Your task to perform on an android device: Add "usb-c" to the cart on amazon, then select checkout. Image 0: 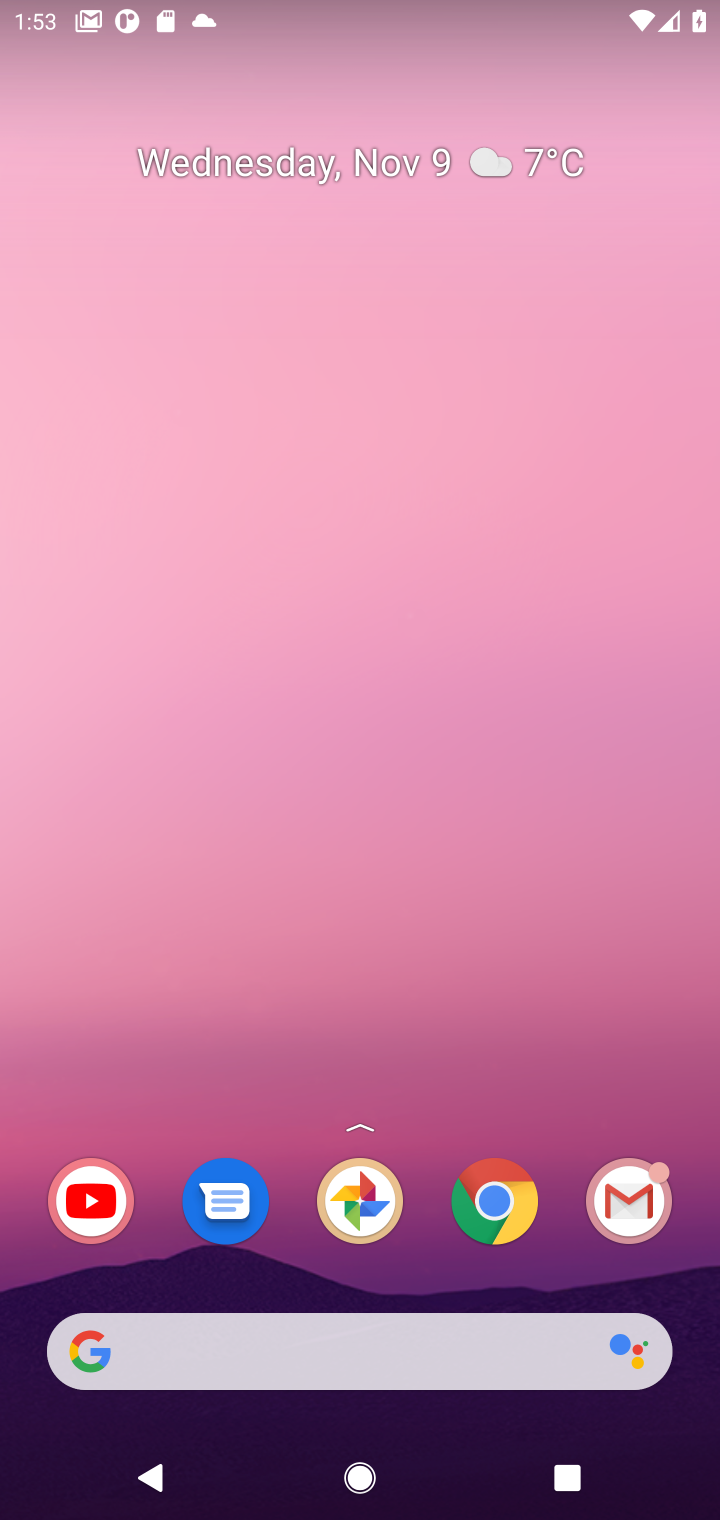
Step 0: click (331, 1344)
Your task to perform on an android device: Add "usb-c" to the cart on amazon, then select checkout. Image 1: 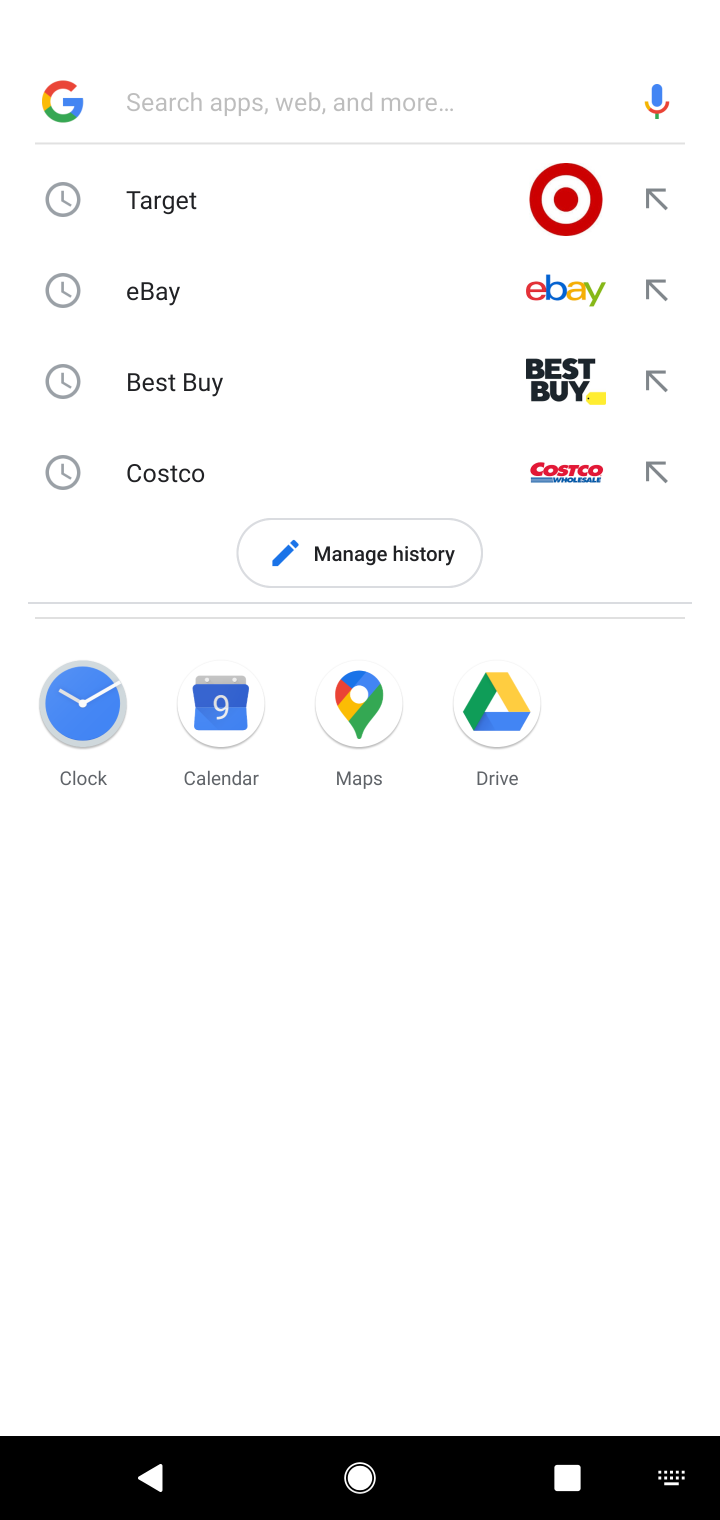
Step 1: type "amazon"
Your task to perform on an android device: Add "usb-c" to the cart on amazon, then select checkout. Image 2: 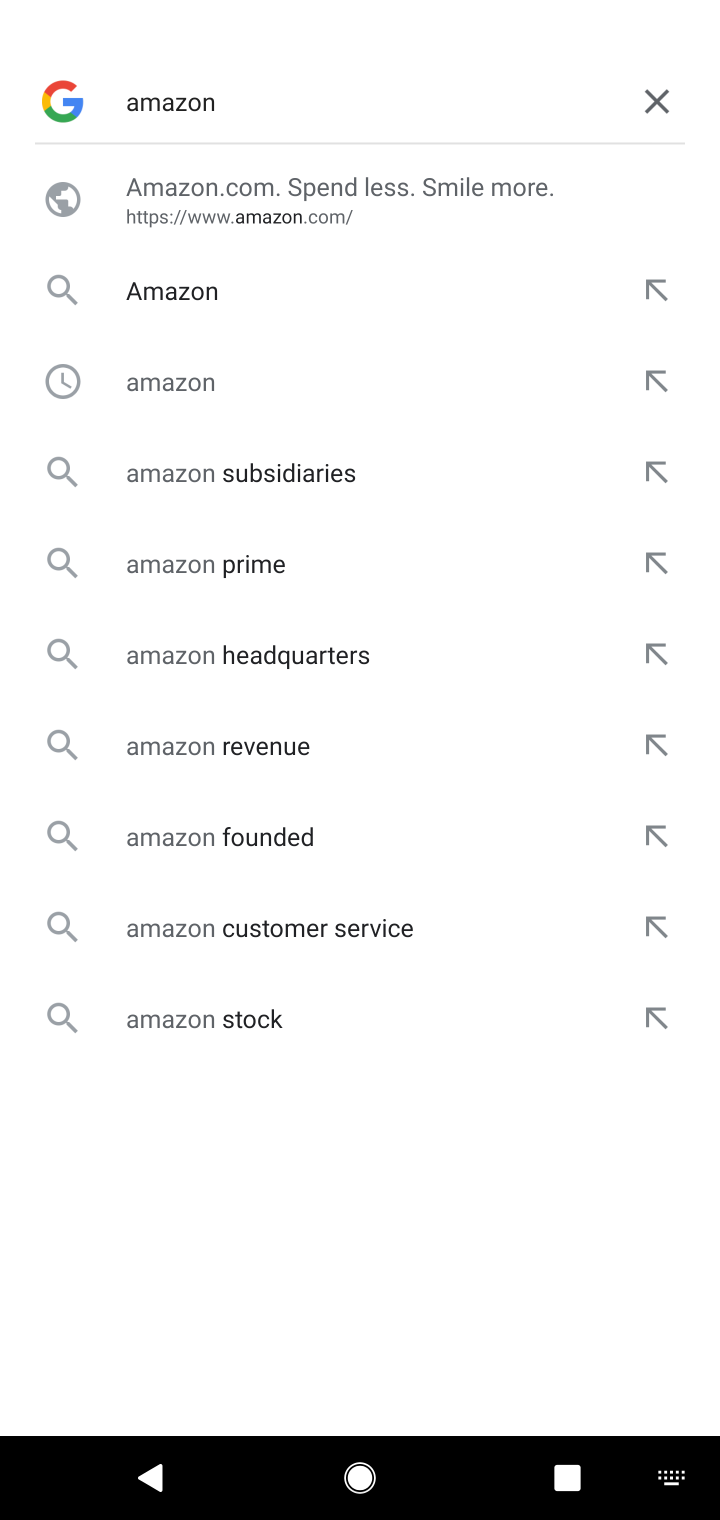
Step 2: click (172, 289)
Your task to perform on an android device: Add "usb-c" to the cart on amazon, then select checkout. Image 3: 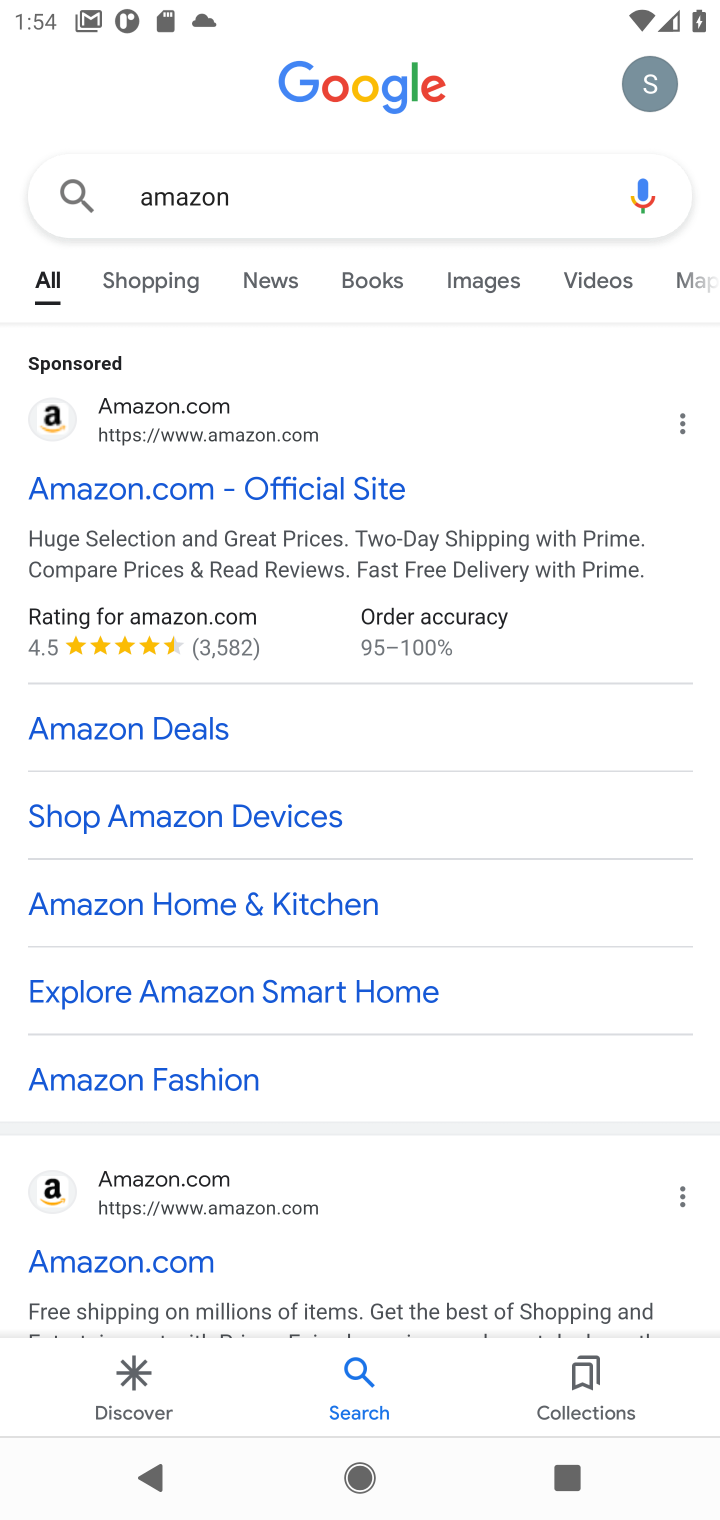
Step 3: click (183, 491)
Your task to perform on an android device: Add "usb-c" to the cart on amazon, then select checkout. Image 4: 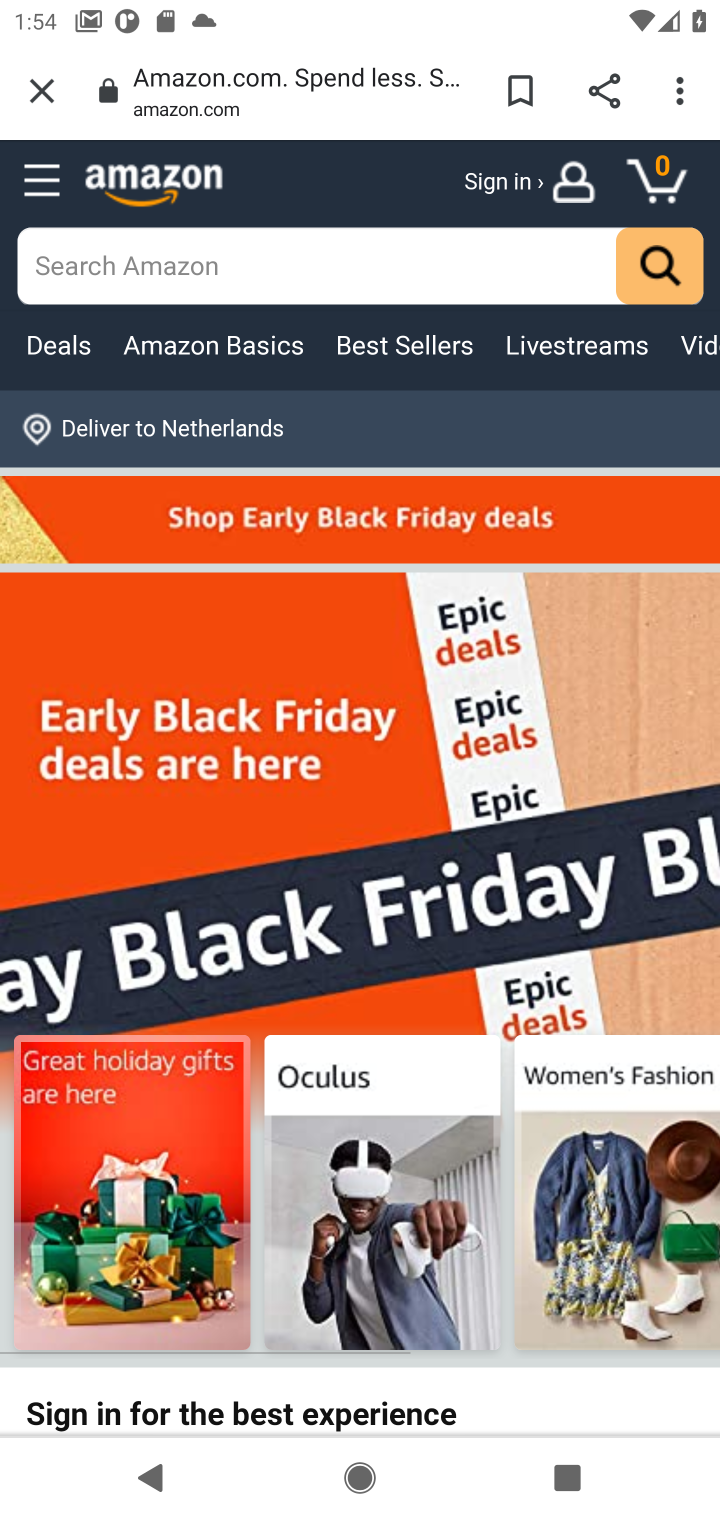
Step 4: click (382, 267)
Your task to perform on an android device: Add "usb-c" to the cart on amazon, then select checkout. Image 5: 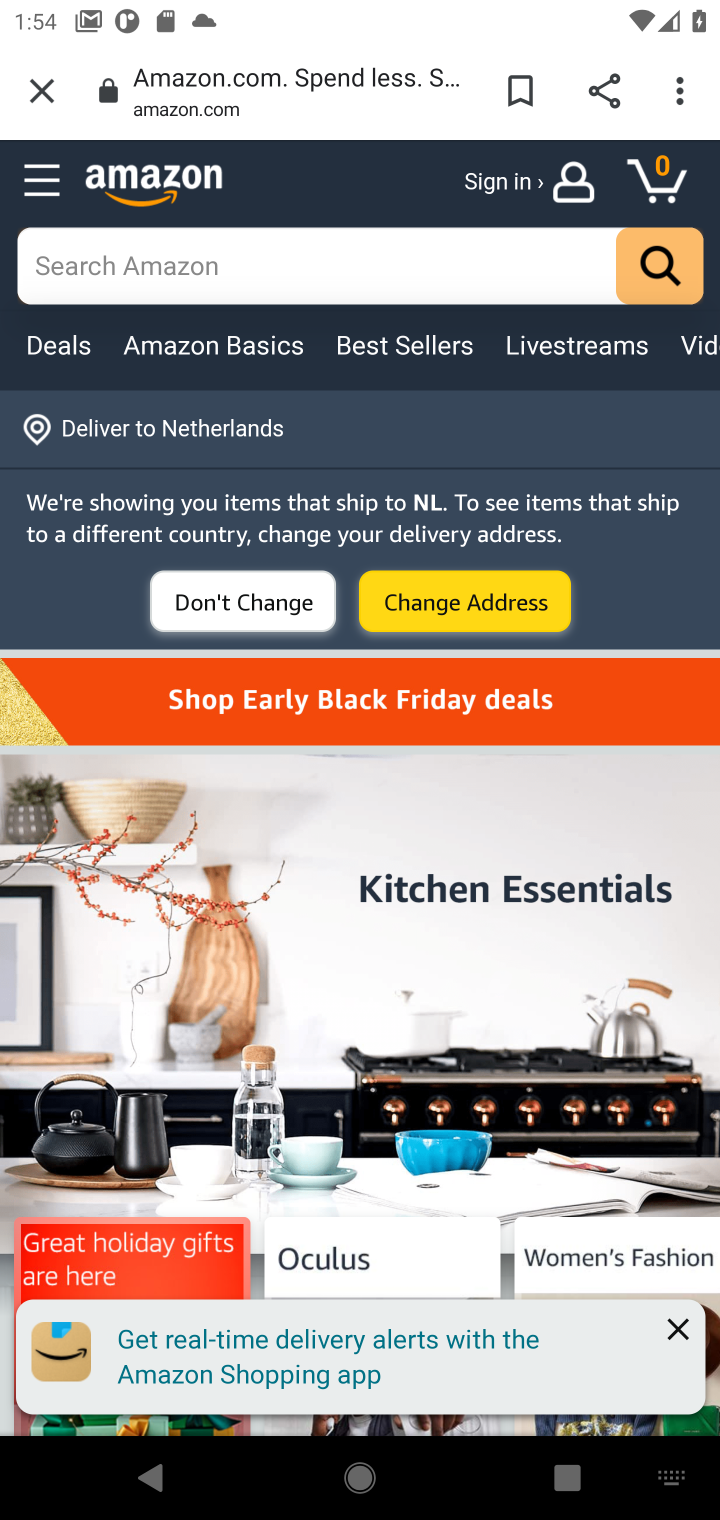
Step 5: type "usb-c"
Your task to perform on an android device: Add "usb-c" to the cart on amazon, then select checkout. Image 6: 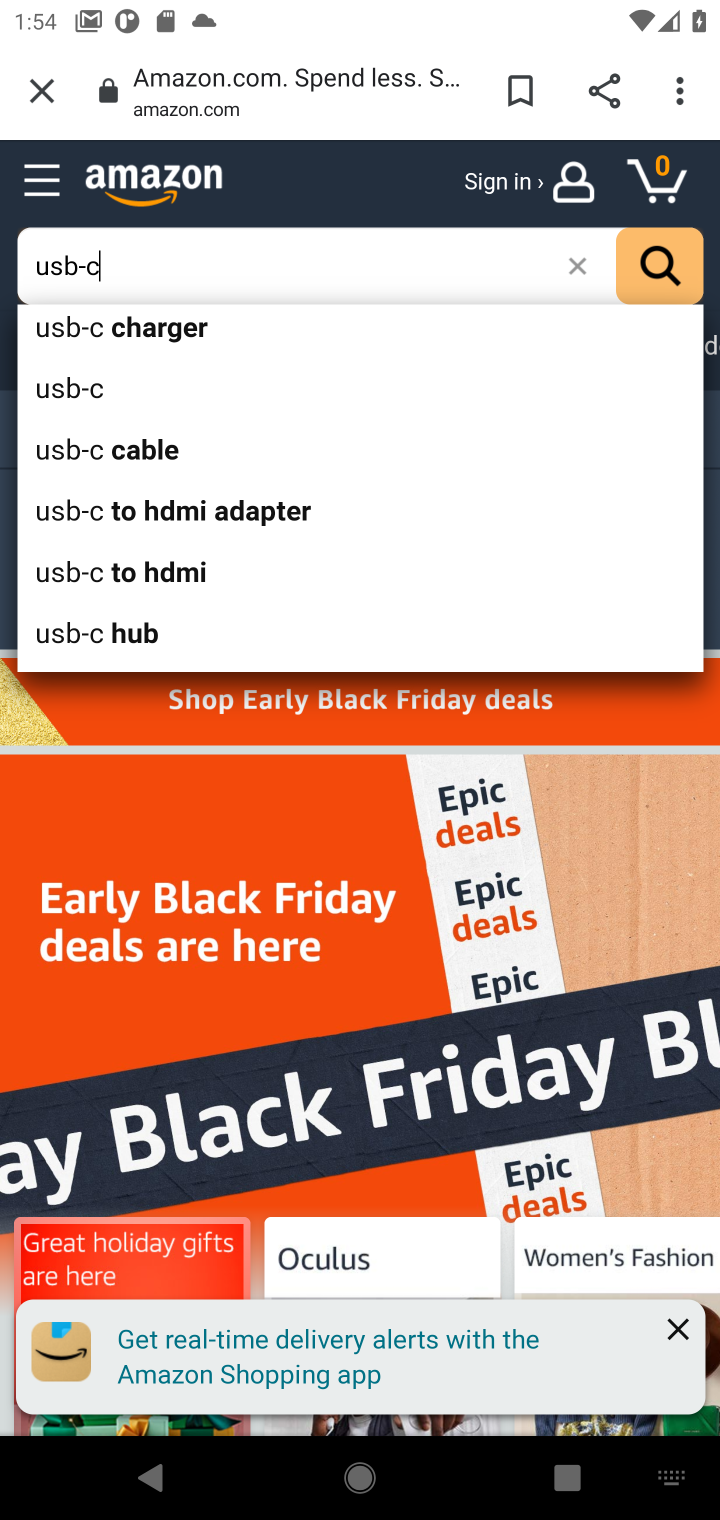
Step 6: click (98, 405)
Your task to perform on an android device: Add "usb-c" to the cart on amazon, then select checkout. Image 7: 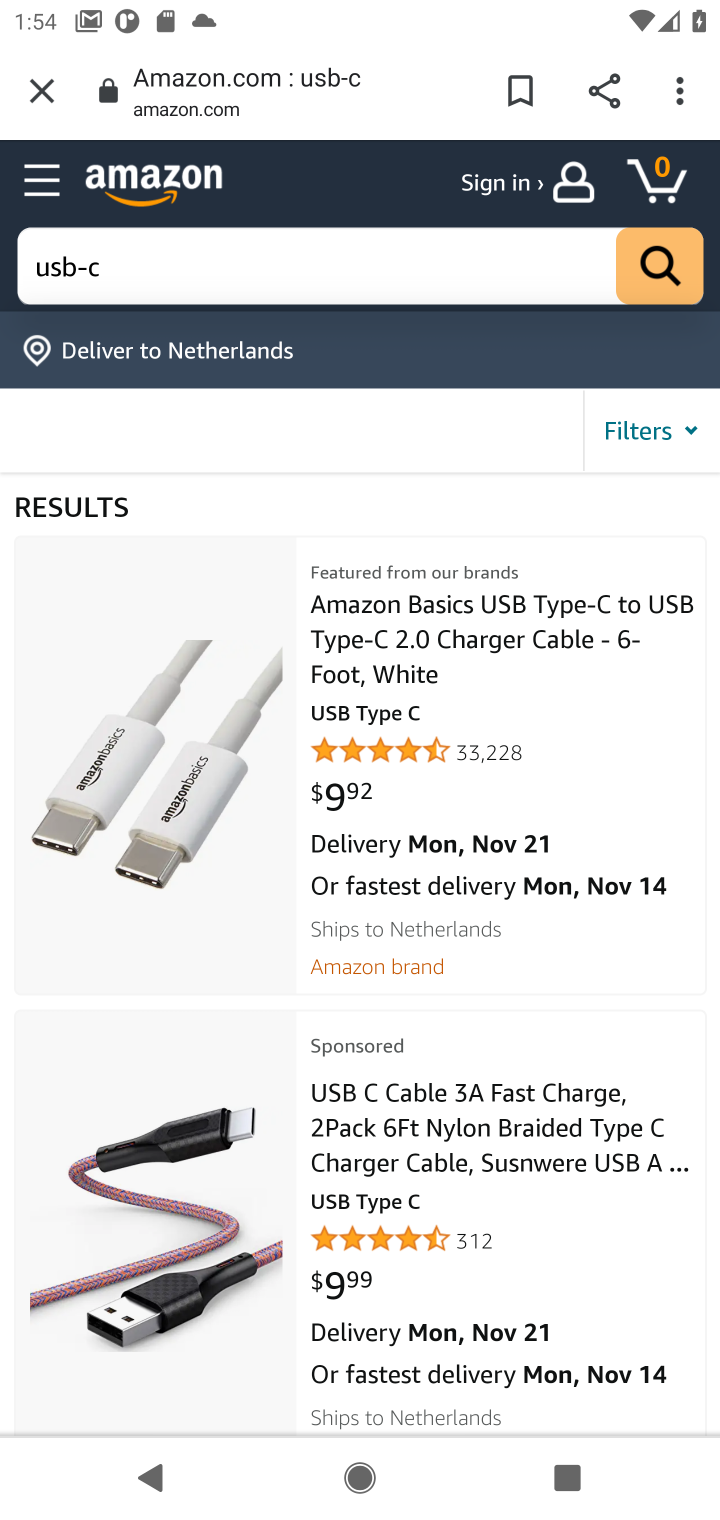
Step 7: click (376, 690)
Your task to perform on an android device: Add "usb-c" to the cart on amazon, then select checkout. Image 8: 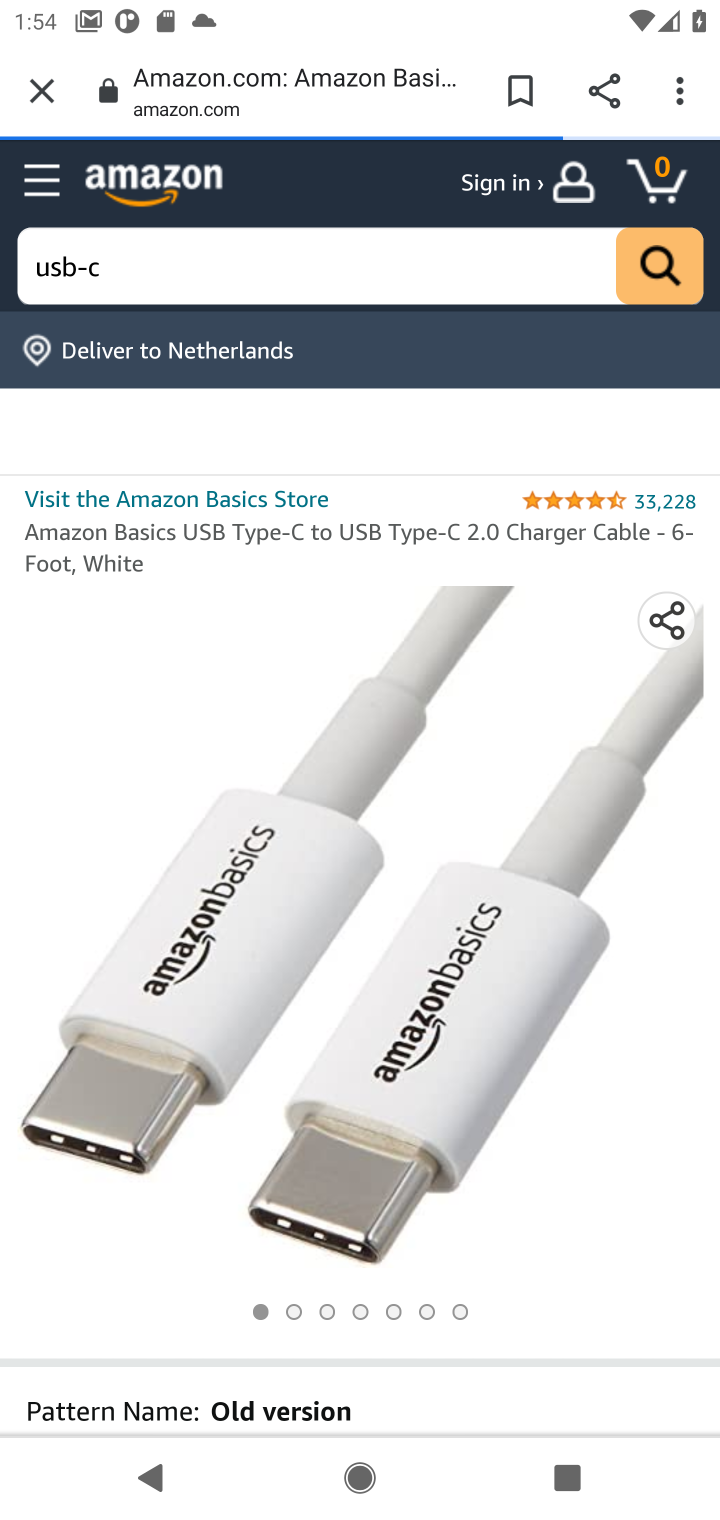
Step 8: drag from (511, 1098) to (484, 755)
Your task to perform on an android device: Add "usb-c" to the cart on amazon, then select checkout. Image 9: 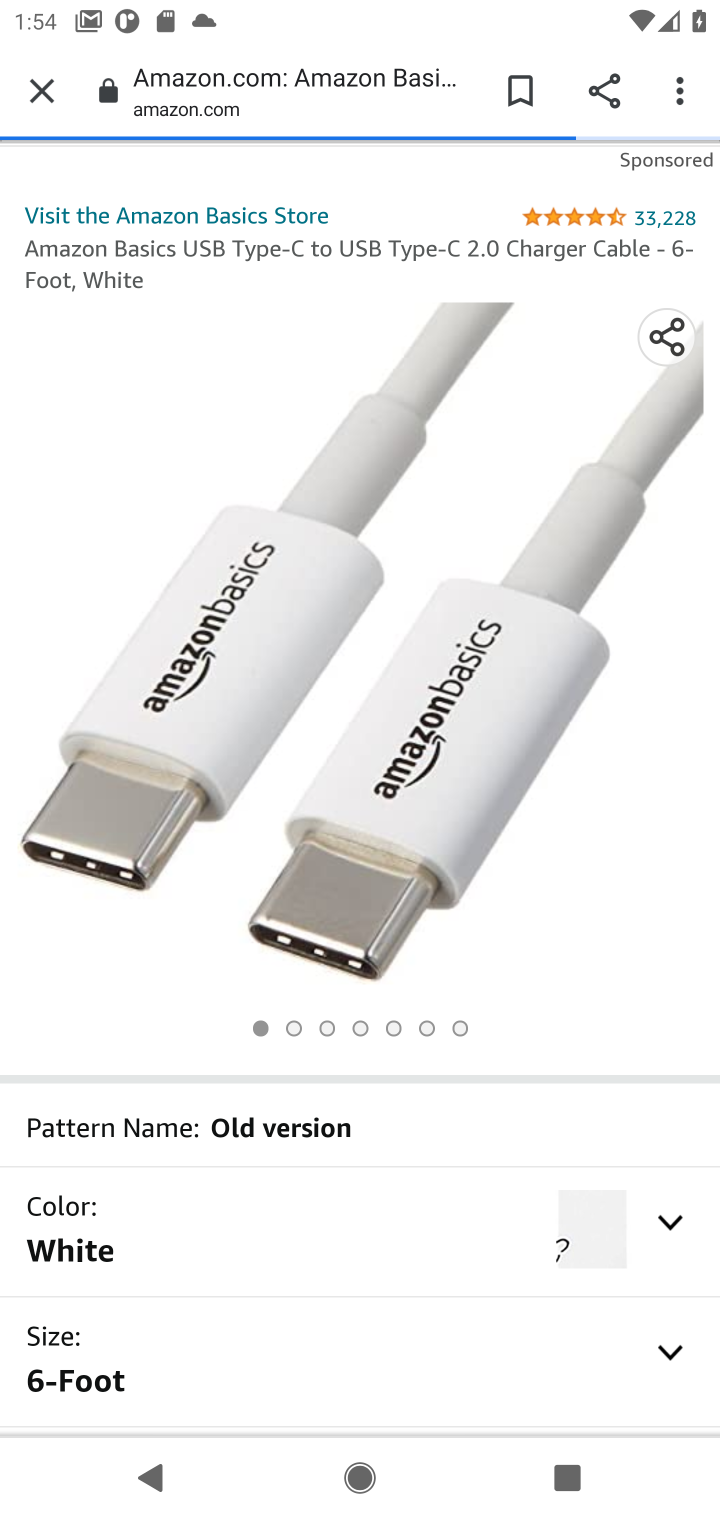
Step 9: click (430, 866)
Your task to perform on an android device: Add "usb-c" to the cart on amazon, then select checkout. Image 10: 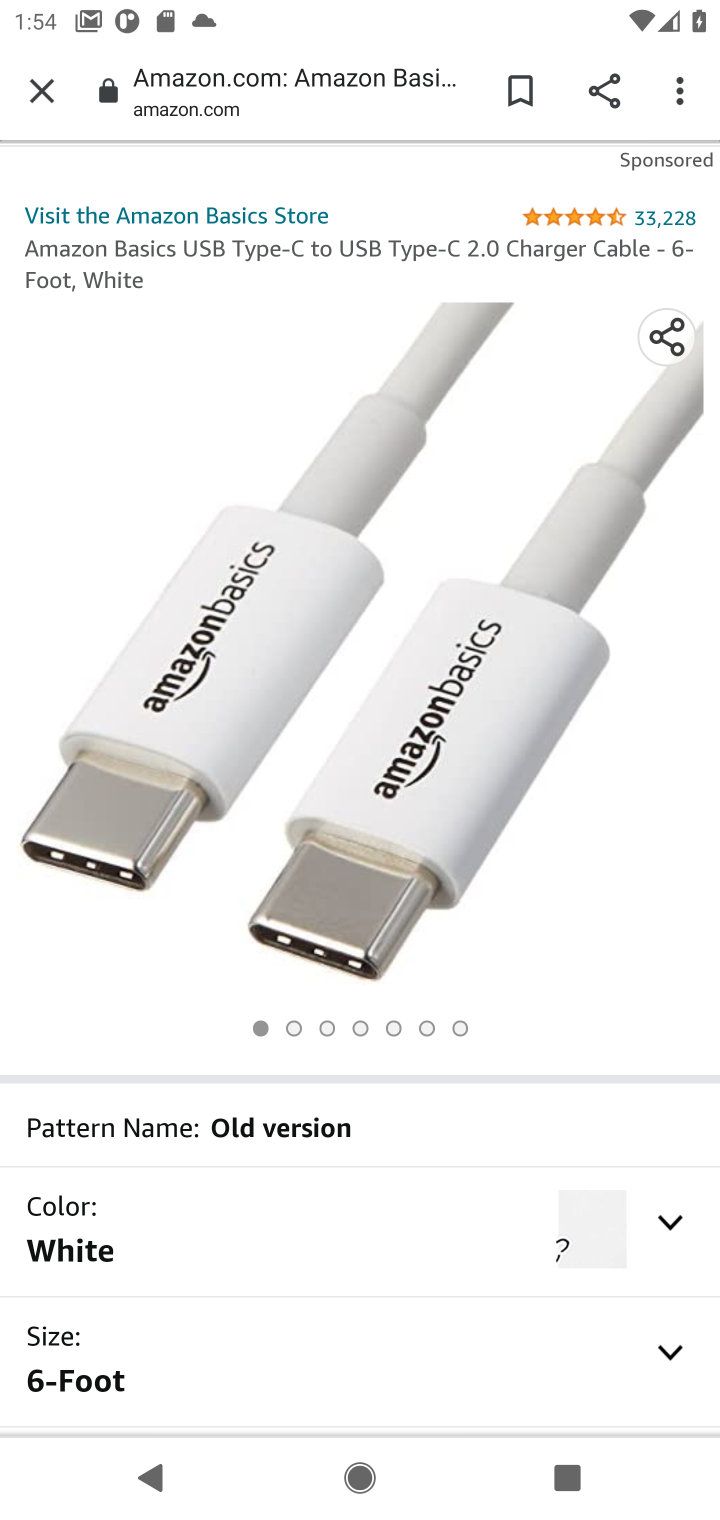
Step 10: drag from (360, 1273) to (358, 701)
Your task to perform on an android device: Add "usb-c" to the cart on amazon, then select checkout. Image 11: 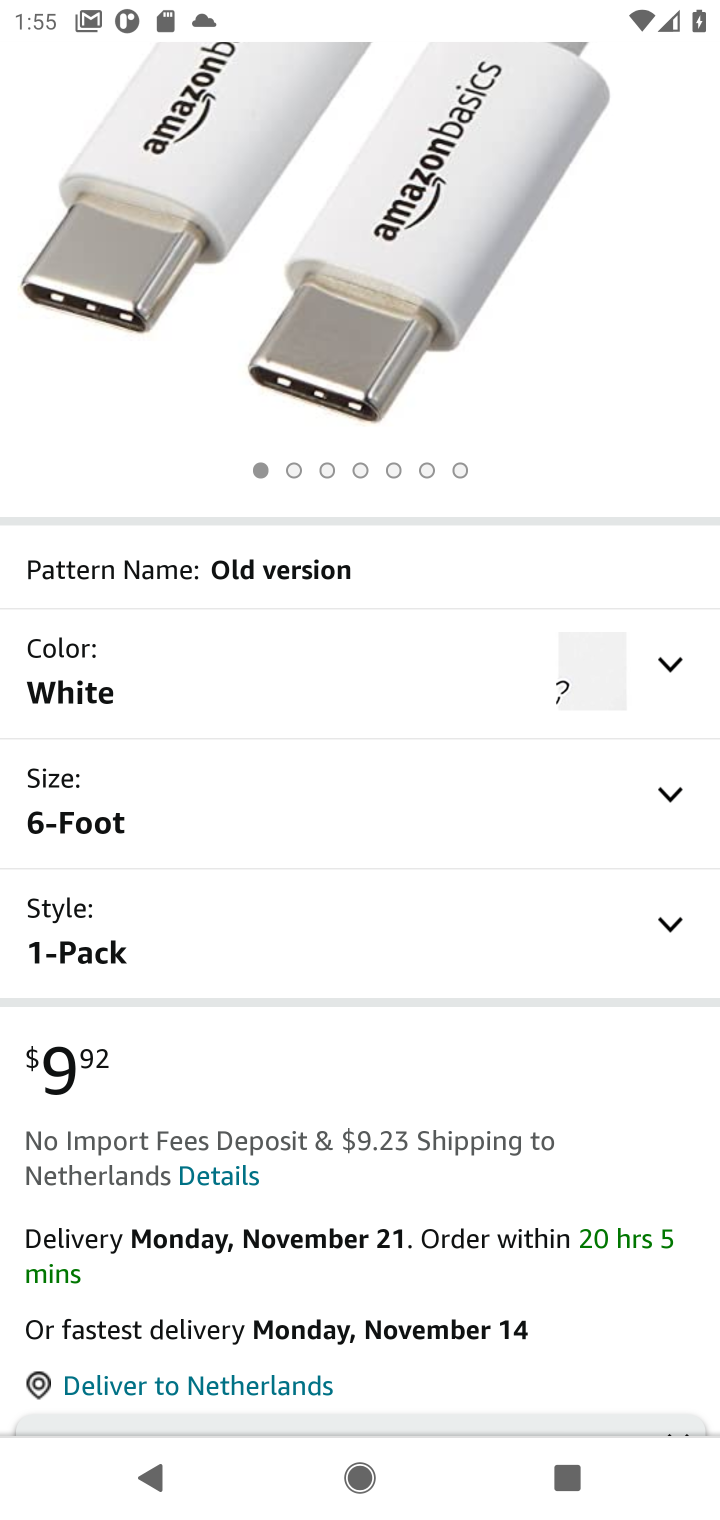
Step 11: click (335, 729)
Your task to perform on an android device: Add "usb-c" to the cart on amazon, then select checkout. Image 12: 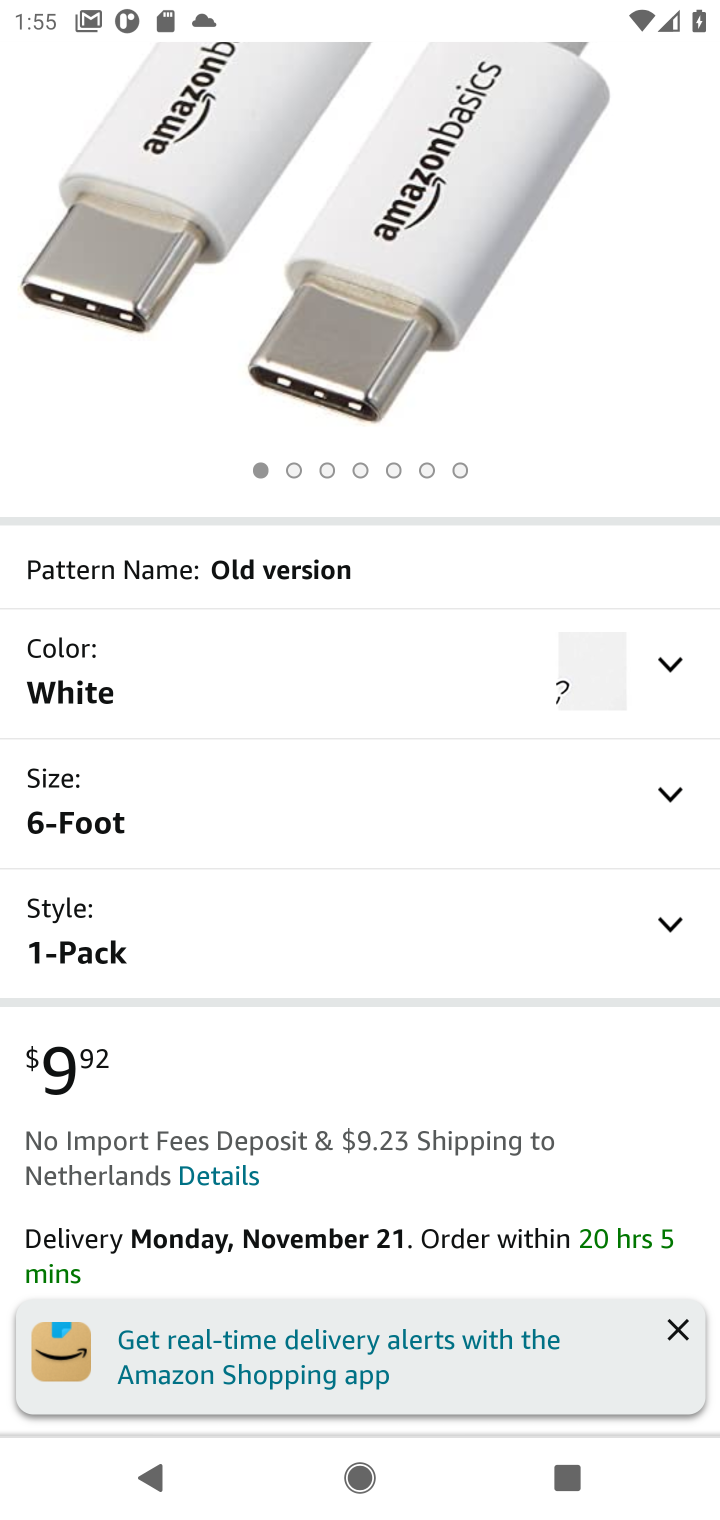
Step 12: click (680, 1327)
Your task to perform on an android device: Add "usb-c" to the cart on amazon, then select checkout. Image 13: 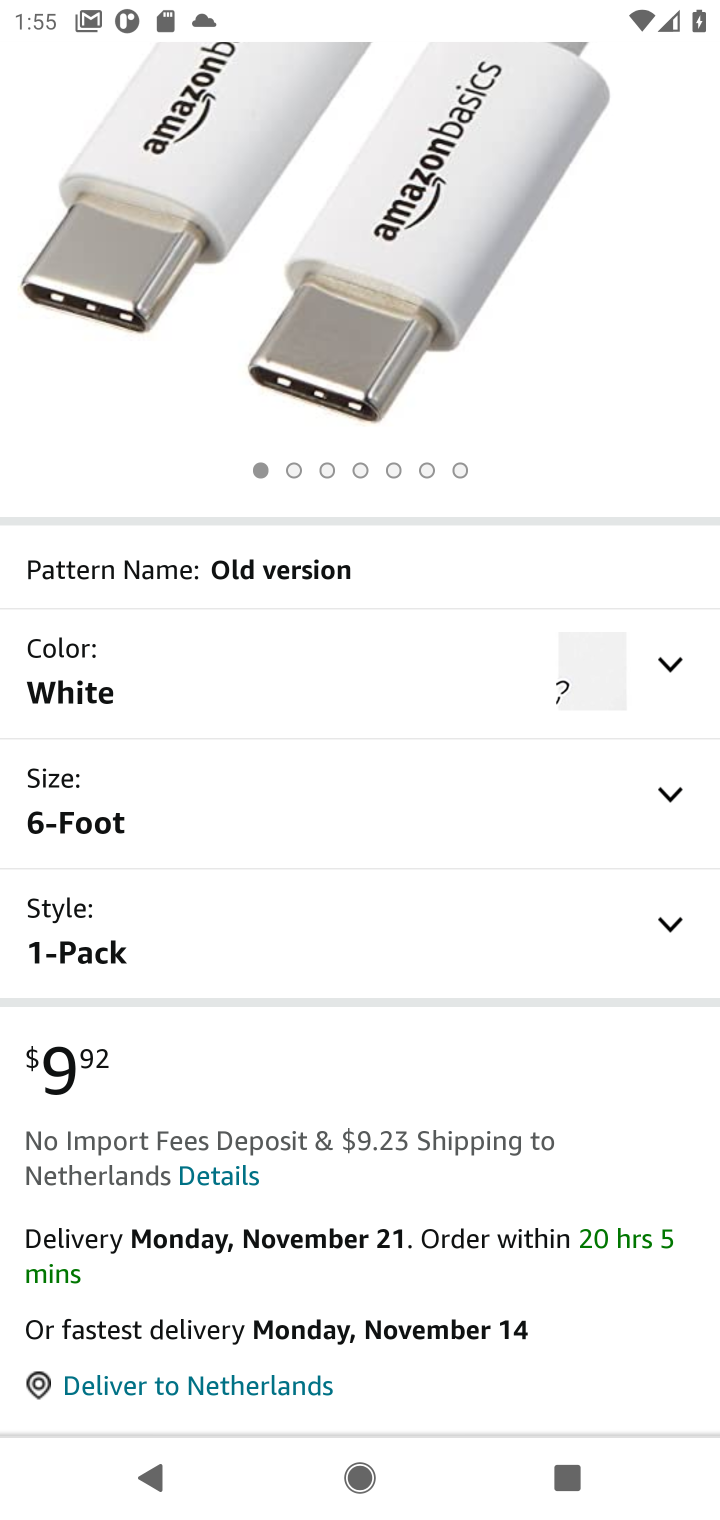
Step 13: drag from (489, 1174) to (446, 891)
Your task to perform on an android device: Add "usb-c" to the cart on amazon, then select checkout. Image 14: 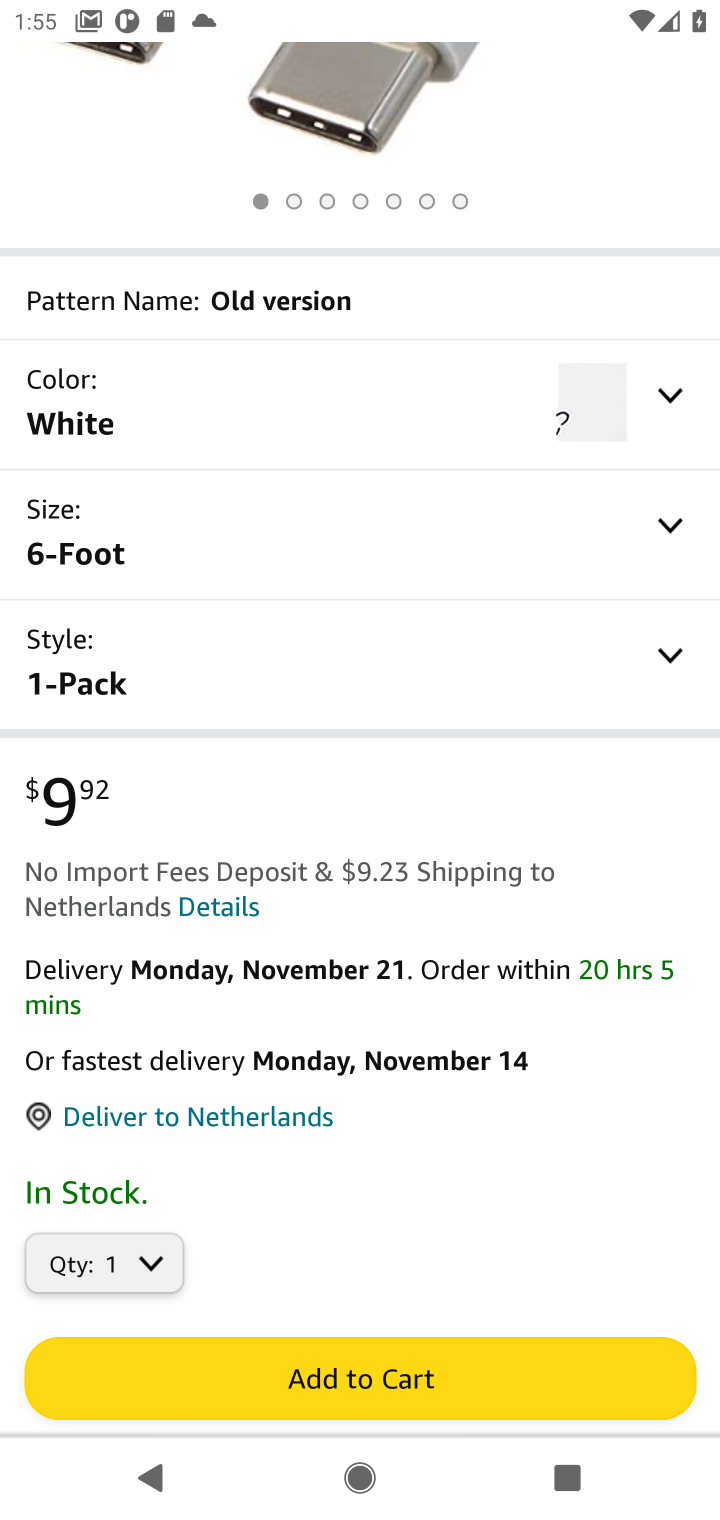
Step 14: click (335, 1384)
Your task to perform on an android device: Add "usb-c" to the cart on amazon, then select checkout. Image 15: 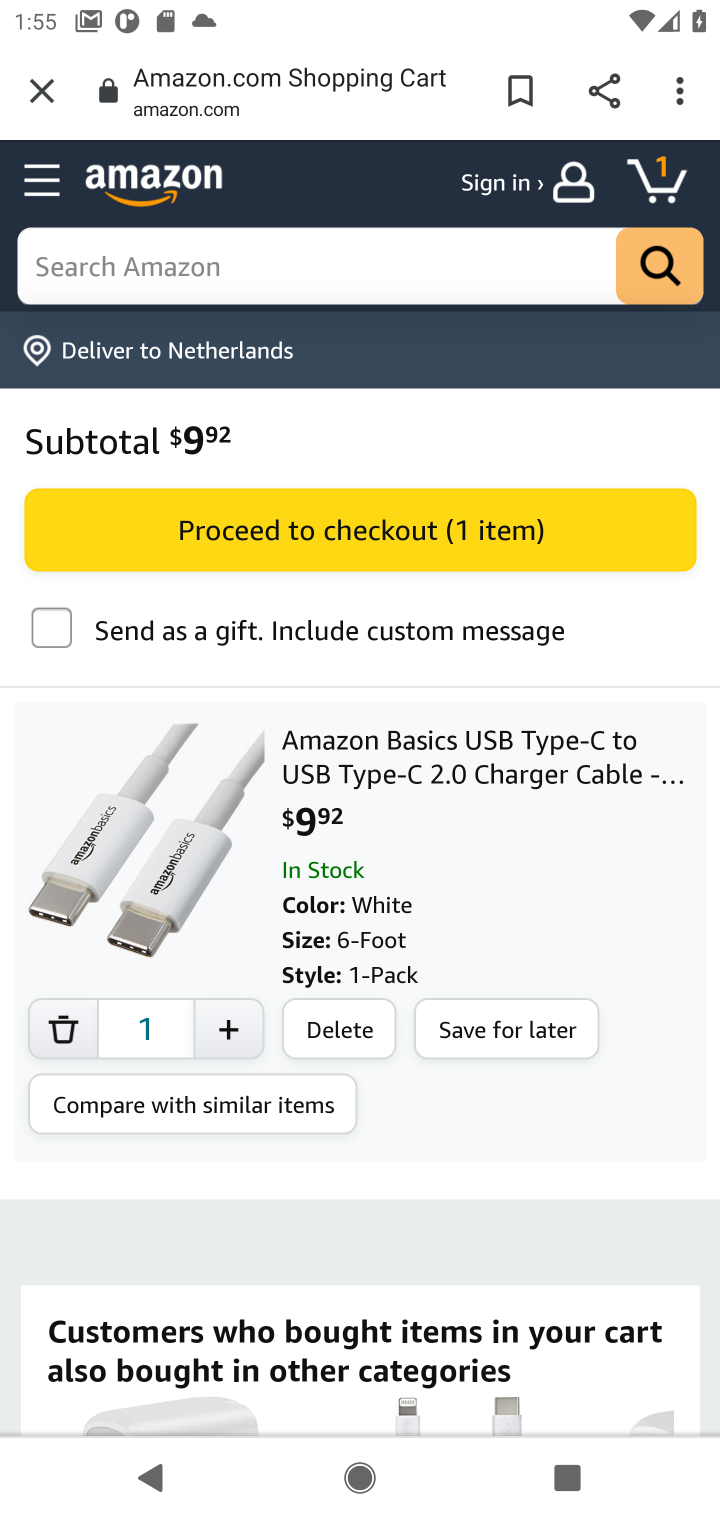
Step 15: click (343, 522)
Your task to perform on an android device: Add "usb-c" to the cart on amazon, then select checkout. Image 16: 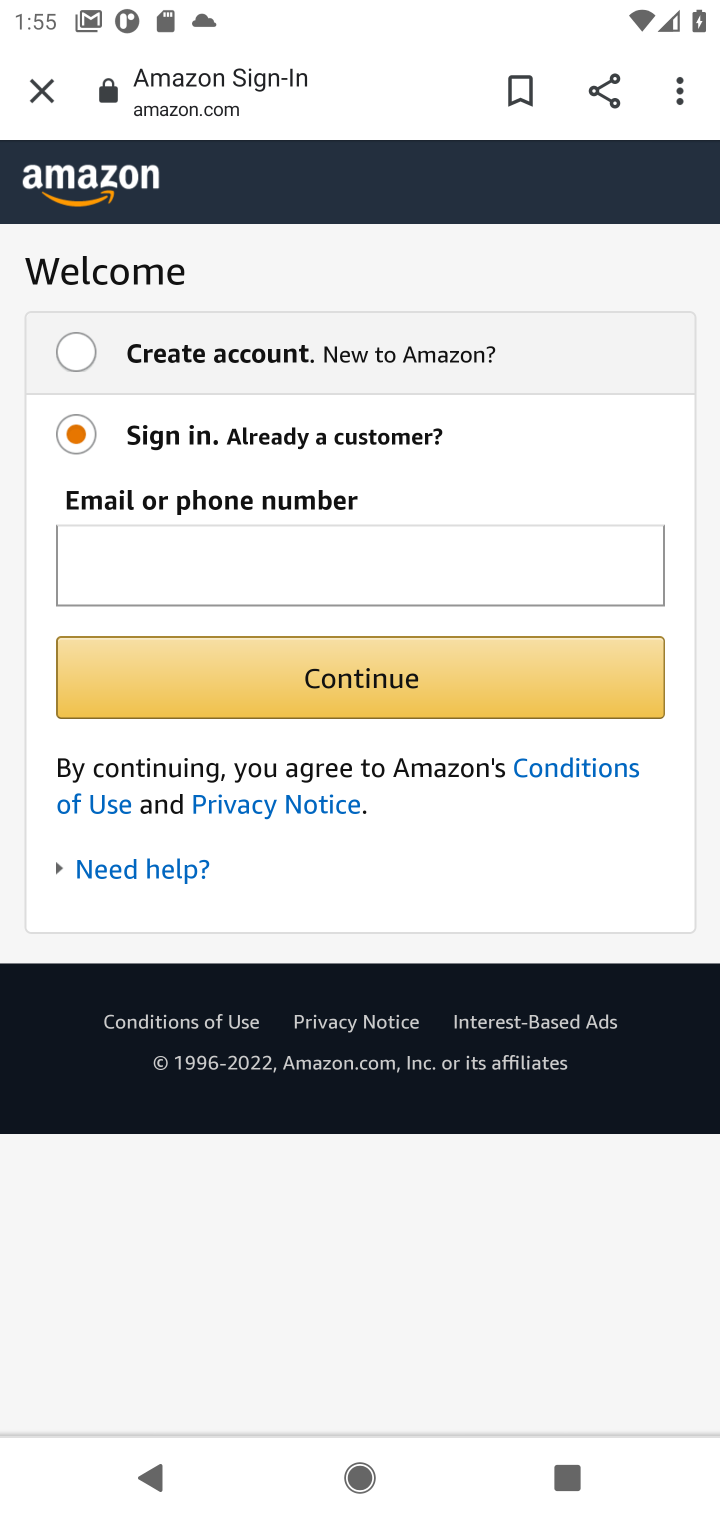
Step 16: task complete